Your task to perform on an android device: set default search engine in the chrome app Image 0: 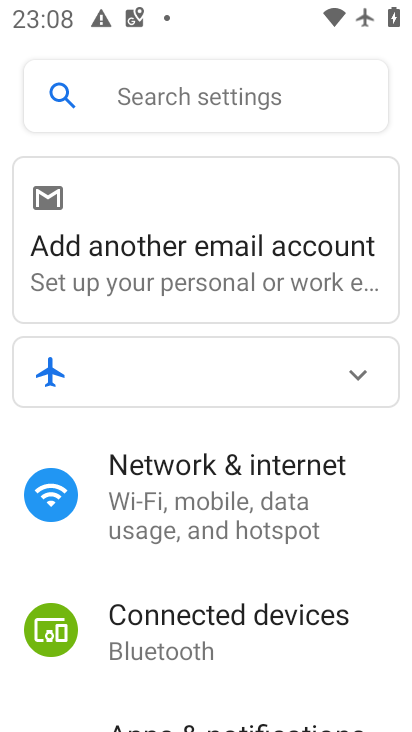
Step 0: press home button
Your task to perform on an android device: set default search engine in the chrome app Image 1: 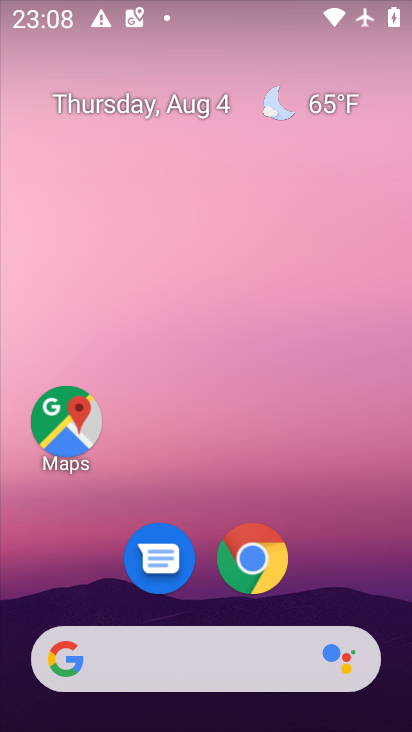
Step 1: drag from (349, 385) to (343, 239)
Your task to perform on an android device: set default search engine in the chrome app Image 2: 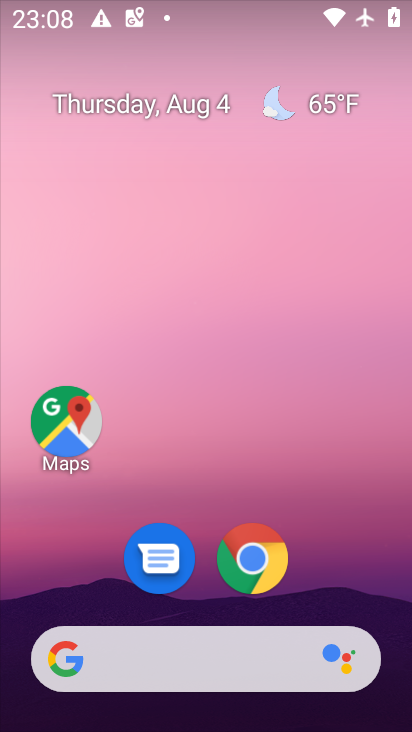
Step 2: drag from (357, 529) to (405, 66)
Your task to perform on an android device: set default search engine in the chrome app Image 3: 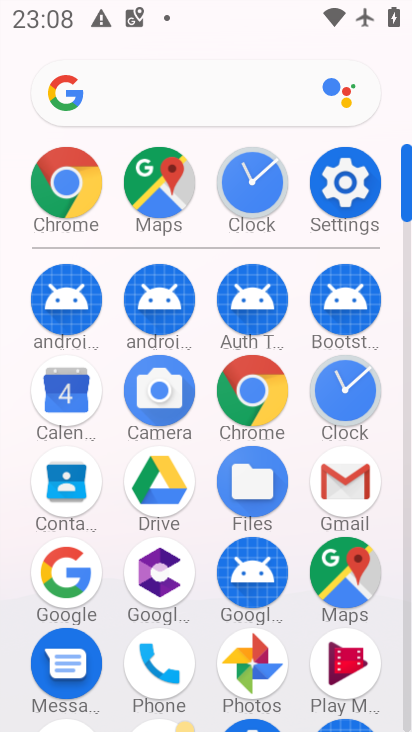
Step 3: click (249, 384)
Your task to perform on an android device: set default search engine in the chrome app Image 4: 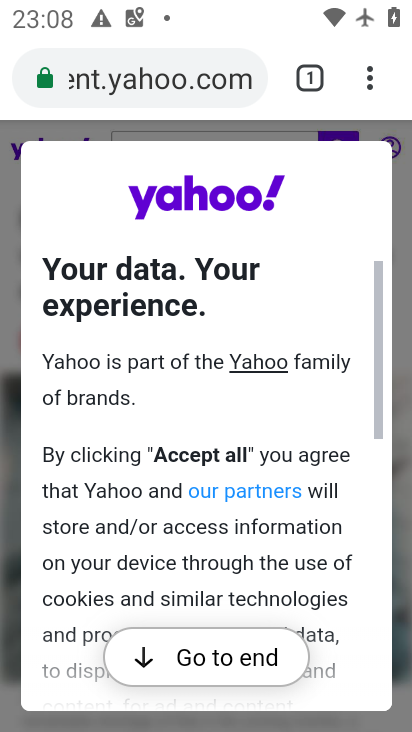
Step 4: drag from (374, 67) to (111, 631)
Your task to perform on an android device: set default search engine in the chrome app Image 5: 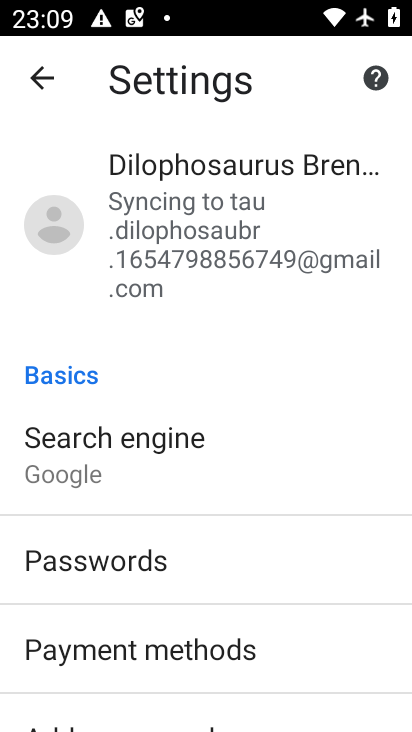
Step 5: click (176, 441)
Your task to perform on an android device: set default search engine in the chrome app Image 6: 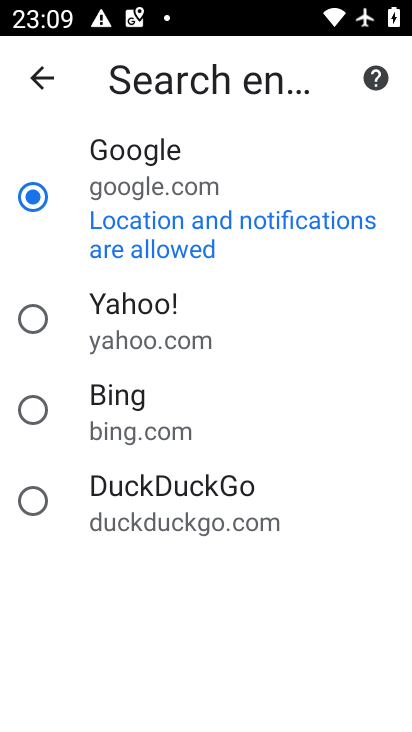
Step 6: task complete